Your task to perform on an android device: check storage Image 0: 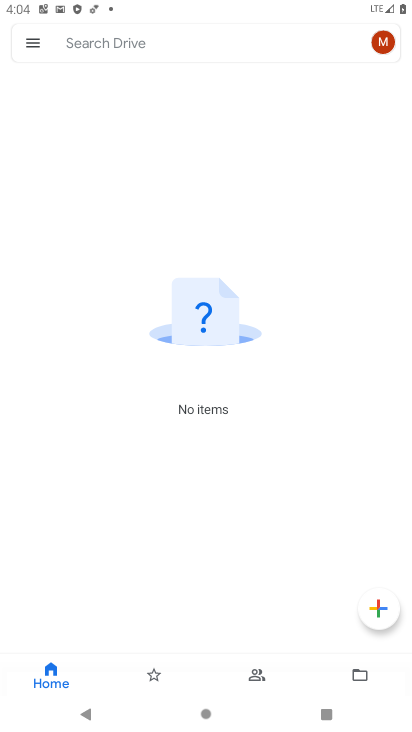
Step 0: press home button
Your task to perform on an android device: check storage Image 1: 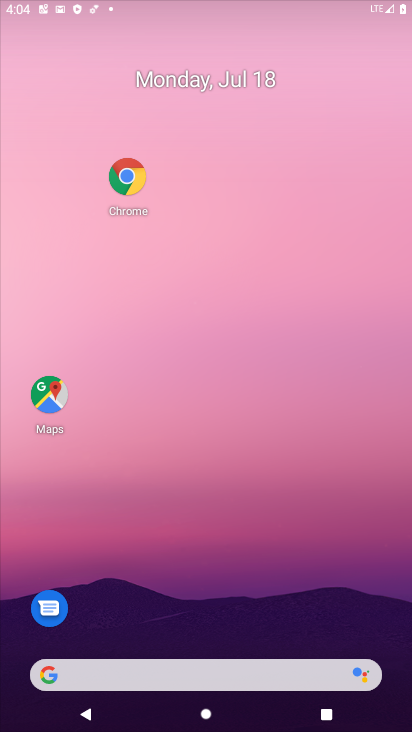
Step 1: drag from (207, 614) to (270, 84)
Your task to perform on an android device: check storage Image 2: 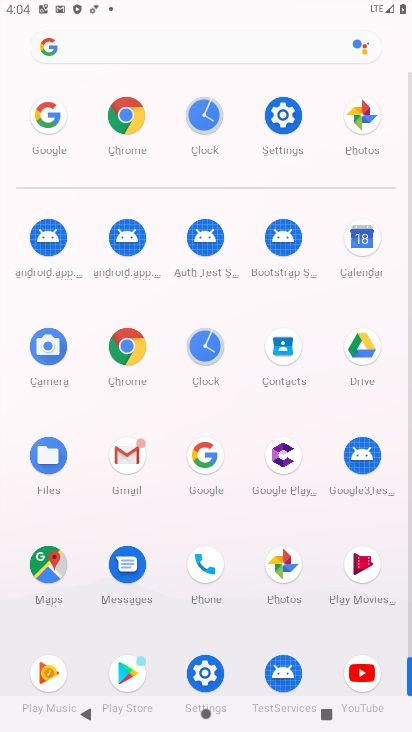
Step 2: click (289, 114)
Your task to perform on an android device: check storage Image 3: 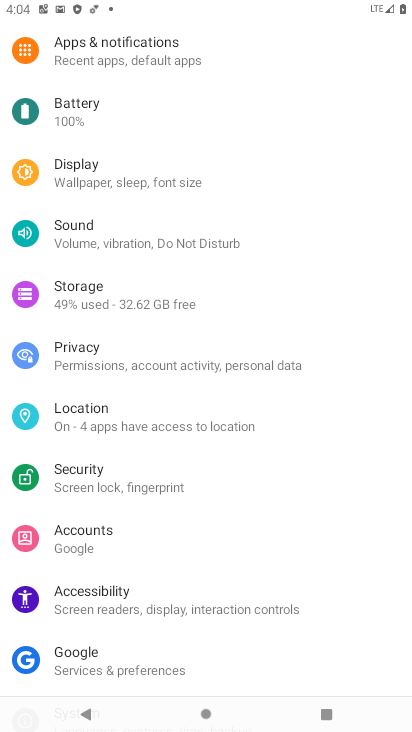
Step 3: click (158, 312)
Your task to perform on an android device: check storage Image 4: 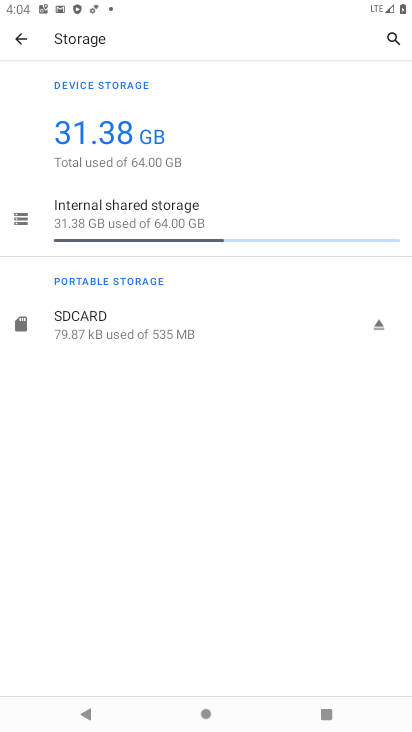
Step 4: click (171, 214)
Your task to perform on an android device: check storage Image 5: 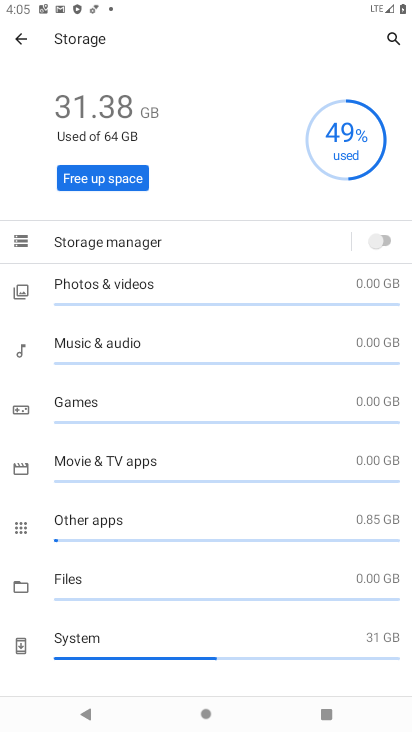
Step 5: task complete